Your task to perform on an android device: Open the map Image 0: 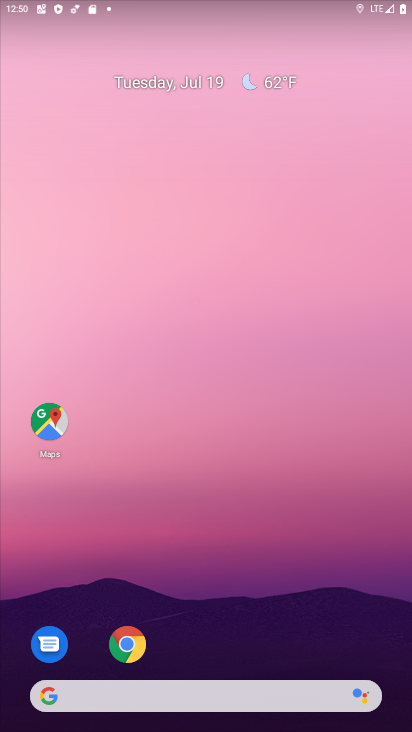
Step 0: click (42, 425)
Your task to perform on an android device: Open the map Image 1: 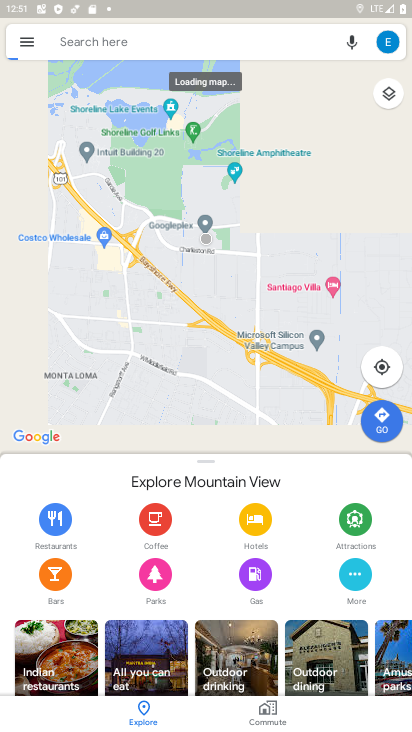
Step 1: task complete